Your task to perform on an android device: remove spam from my inbox in the gmail app Image 0: 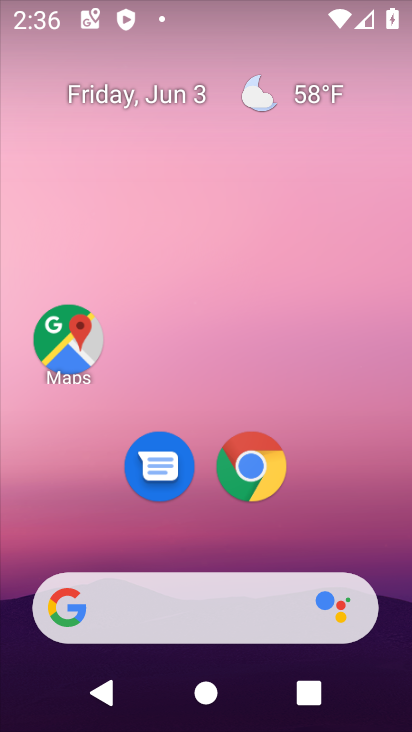
Step 0: drag from (362, 544) to (367, 368)
Your task to perform on an android device: remove spam from my inbox in the gmail app Image 1: 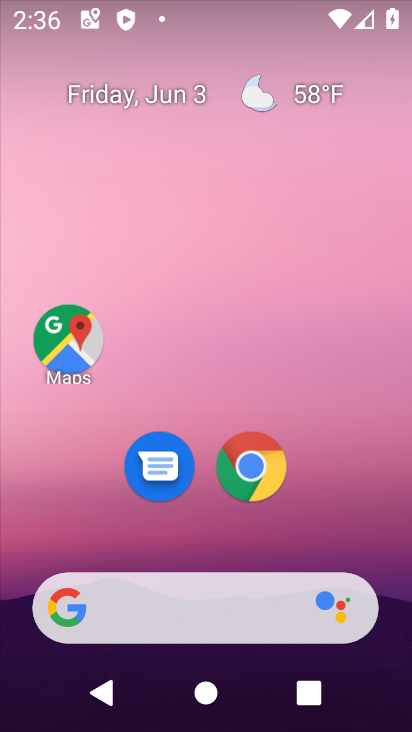
Step 1: drag from (378, 472) to (355, 246)
Your task to perform on an android device: remove spam from my inbox in the gmail app Image 2: 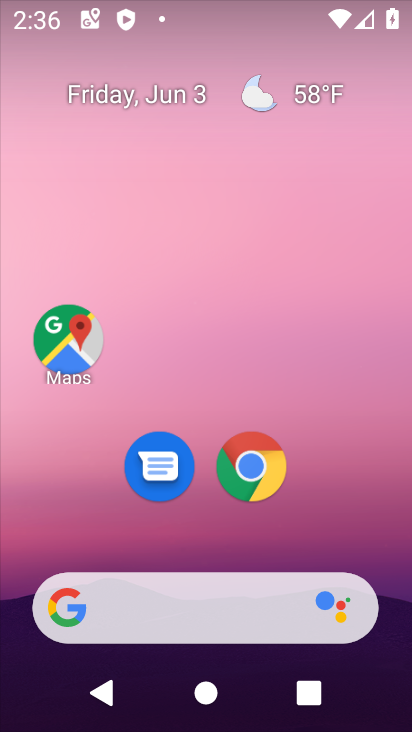
Step 2: drag from (397, 663) to (394, 228)
Your task to perform on an android device: remove spam from my inbox in the gmail app Image 3: 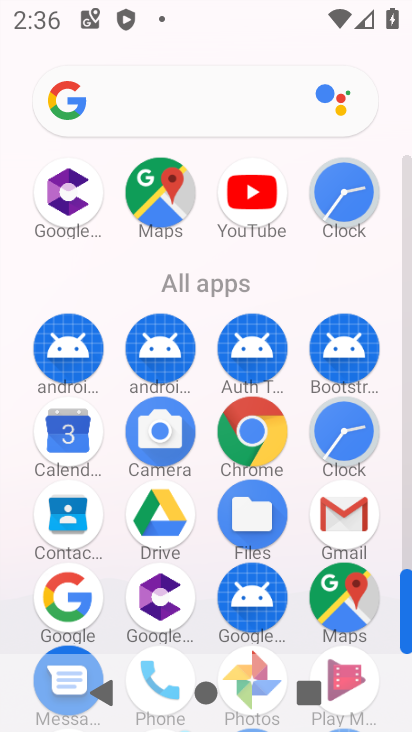
Step 3: click (333, 531)
Your task to perform on an android device: remove spam from my inbox in the gmail app Image 4: 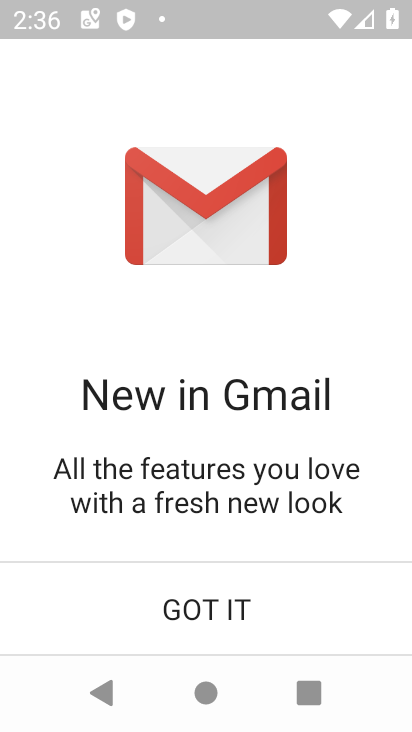
Step 4: click (218, 601)
Your task to perform on an android device: remove spam from my inbox in the gmail app Image 5: 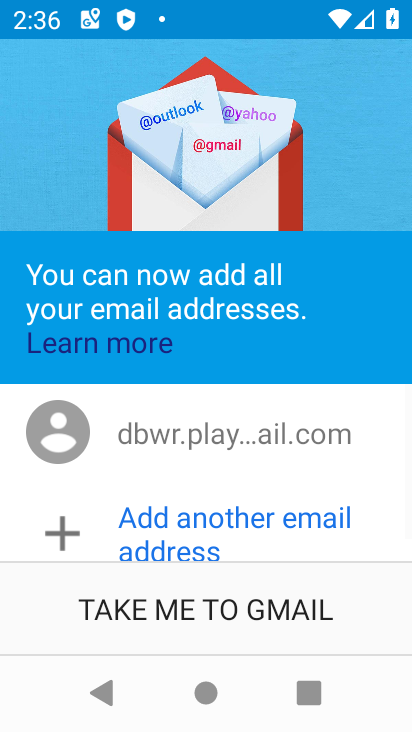
Step 5: click (212, 595)
Your task to perform on an android device: remove spam from my inbox in the gmail app Image 6: 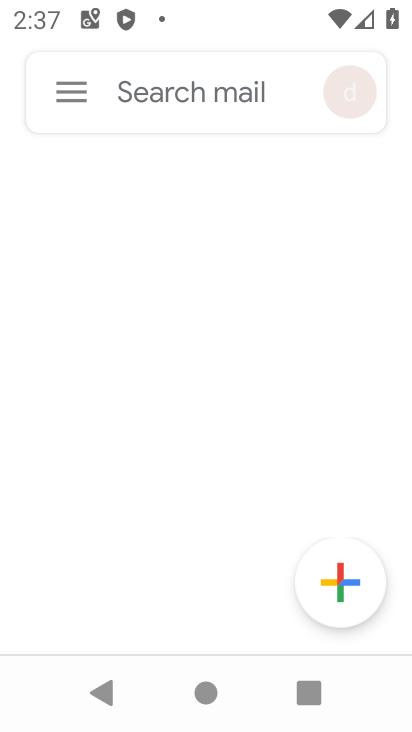
Step 6: click (70, 102)
Your task to perform on an android device: remove spam from my inbox in the gmail app Image 7: 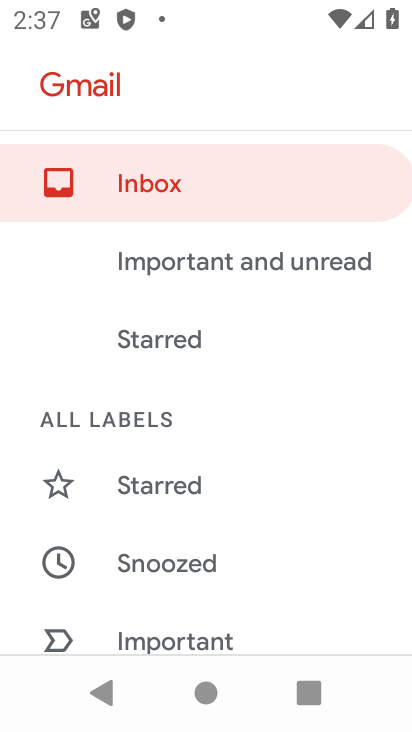
Step 7: drag from (295, 493) to (333, 58)
Your task to perform on an android device: remove spam from my inbox in the gmail app Image 8: 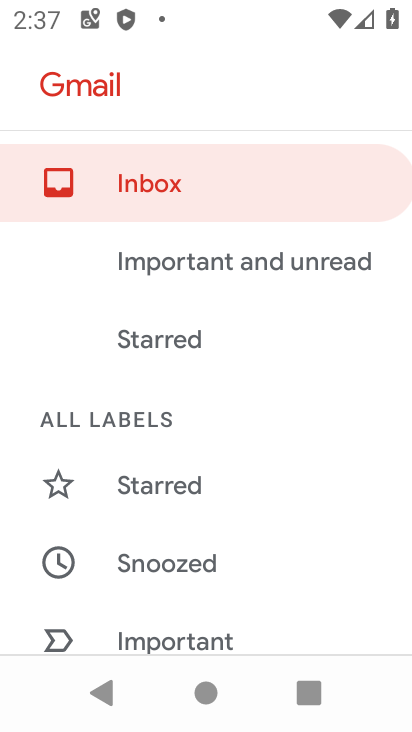
Step 8: drag from (235, 595) to (337, 158)
Your task to perform on an android device: remove spam from my inbox in the gmail app Image 9: 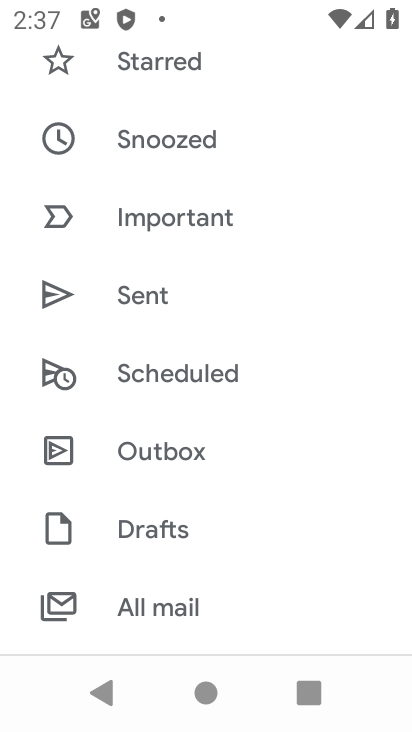
Step 9: drag from (280, 565) to (279, 152)
Your task to perform on an android device: remove spam from my inbox in the gmail app Image 10: 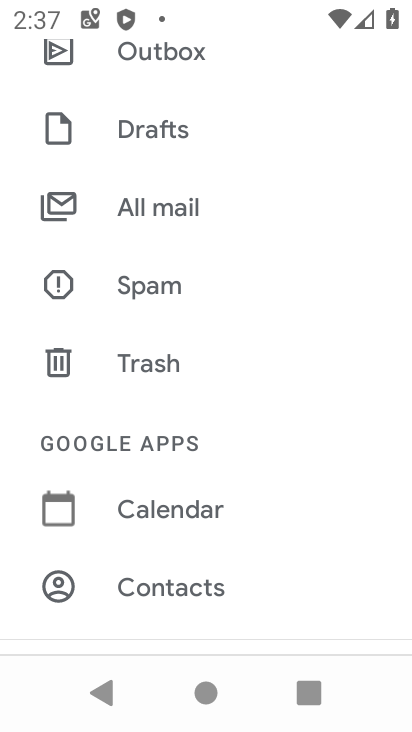
Step 10: click (131, 285)
Your task to perform on an android device: remove spam from my inbox in the gmail app Image 11: 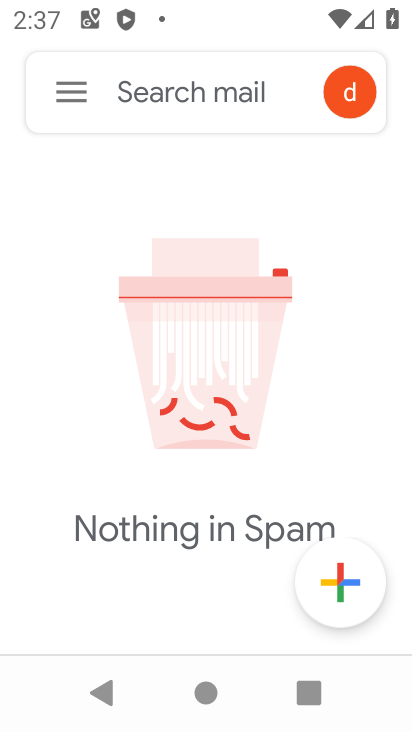
Step 11: task complete